Your task to perform on an android device: Open Chrome and go to the settings page Image 0: 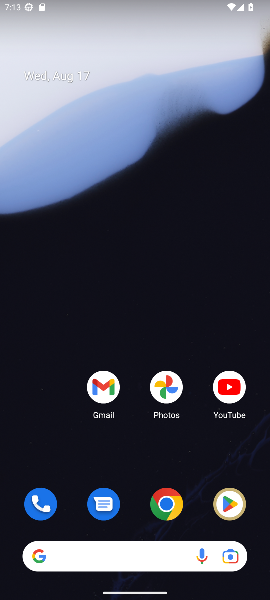
Step 0: drag from (138, 457) to (141, 110)
Your task to perform on an android device: Open Chrome and go to the settings page Image 1: 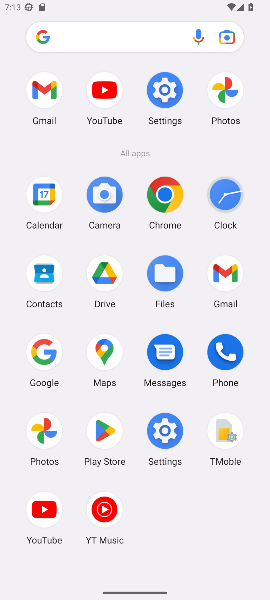
Step 1: click (164, 203)
Your task to perform on an android device: Open Chrome and go to the settings page Image 2: 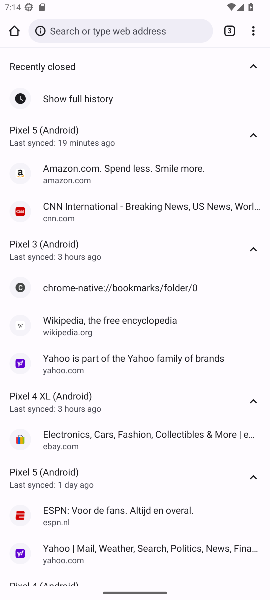
Step 2: click (256, 32)
Your task to perform on an android device: Open Chrome and go to the settings page Image 3: 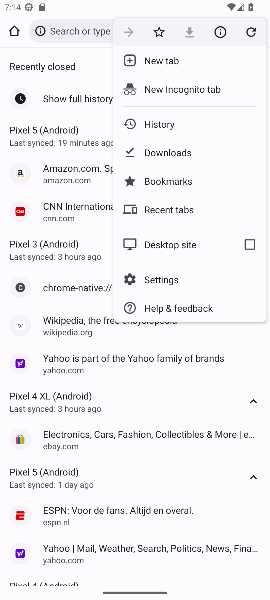
Step 3: click (182, 277)
Your task to perform on an android device: Open Chrome and go to the settings page Image 4: 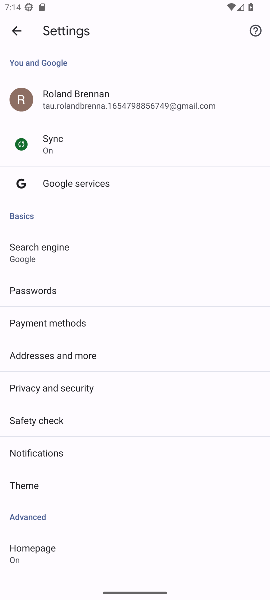
Step 4: task complete